Your task to perform on an android device: open a bookmark in the chrome app Image 0: 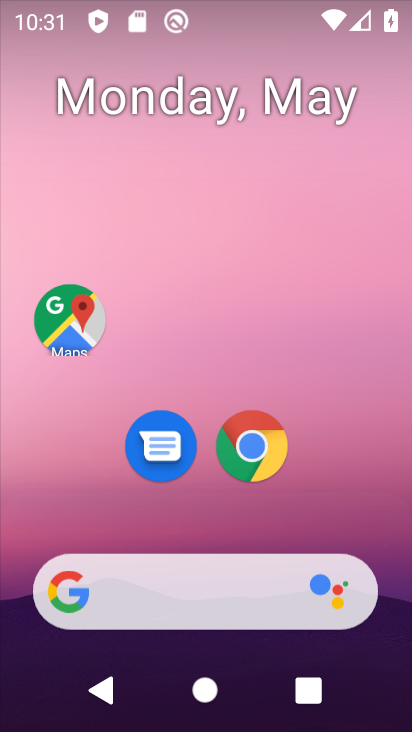
Step 0: click (256, 428)
Your task to perform on an android device: open a bookmark in the chrome app Image 1: 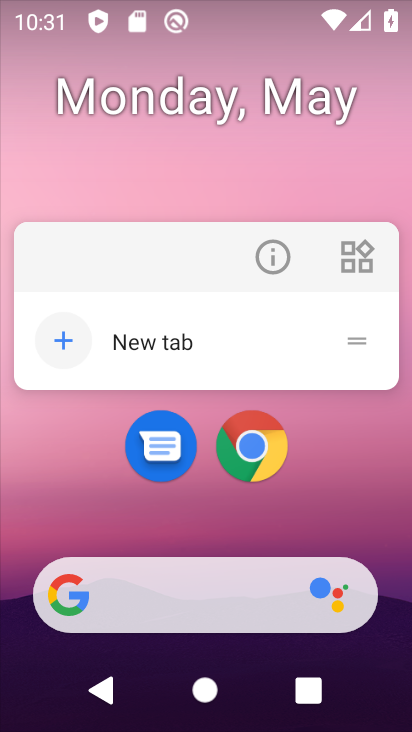
Step 1: click (255, 445)
Your task to perform on an android device: open a bookmark in the chrome app Image 2: 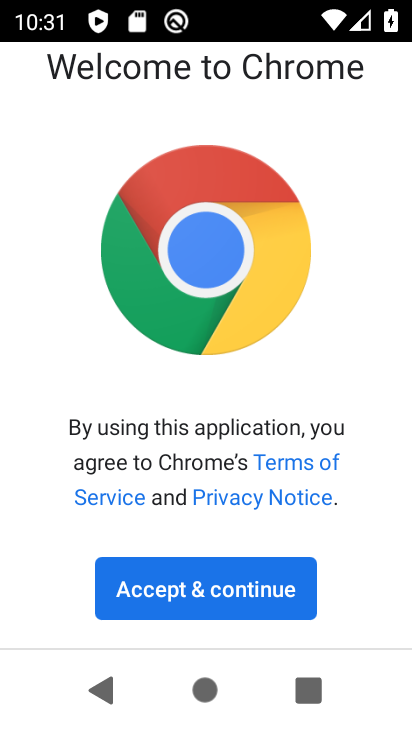
Step 2: click (208, 548)
Your task to perform on an android device: open a bookmark in the chrome app Image 3: 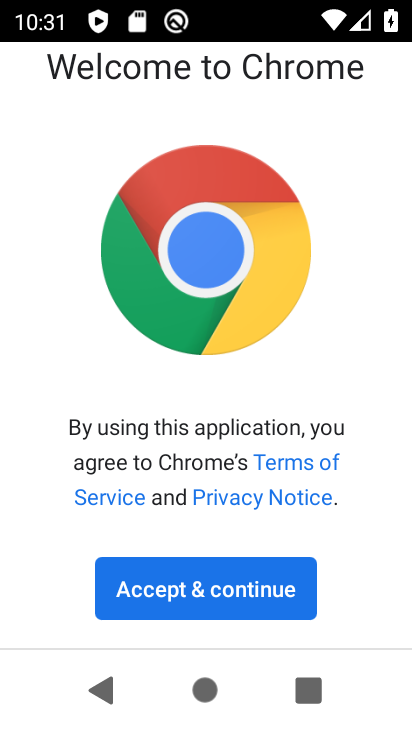
Step 3: click (199, 571)
Your task to perform on an android device: open a bookmark in the chrome app Image 4: 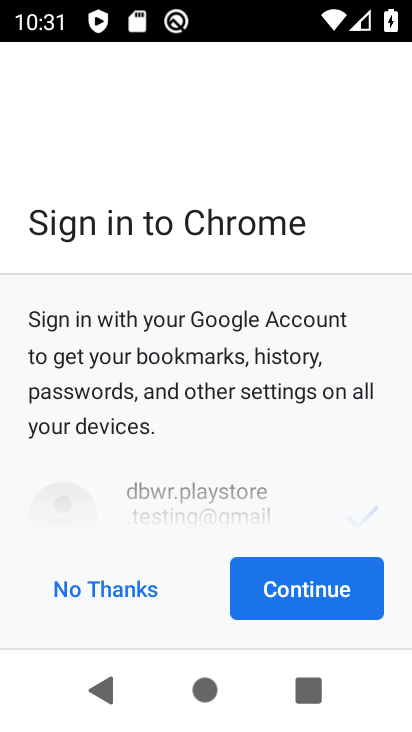
Step 4: click (354, 607)
Your task to perform on an android device: open a bookmark in the chrome app Image 5: 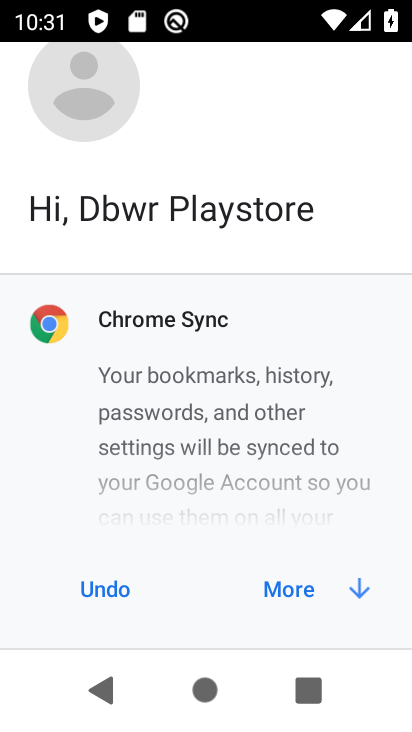
Step 5: click (329, 592)
Your task to perform on an android device: open a bookmark in the chrome app Image 6: 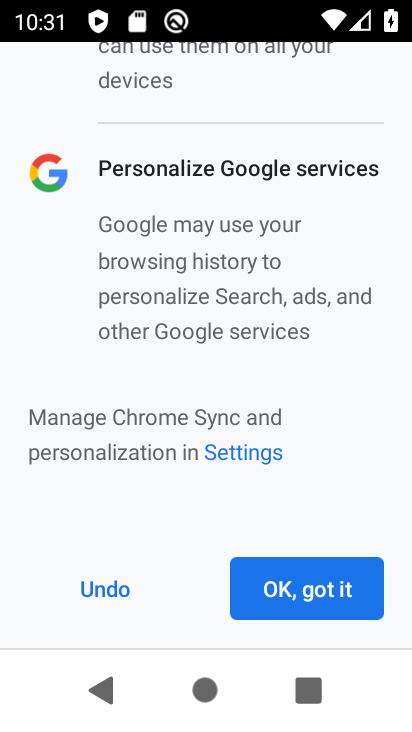
Step 6: click (268, 567)
Your task to perform on an android device: open a bookmark in the chrome app Image 7: 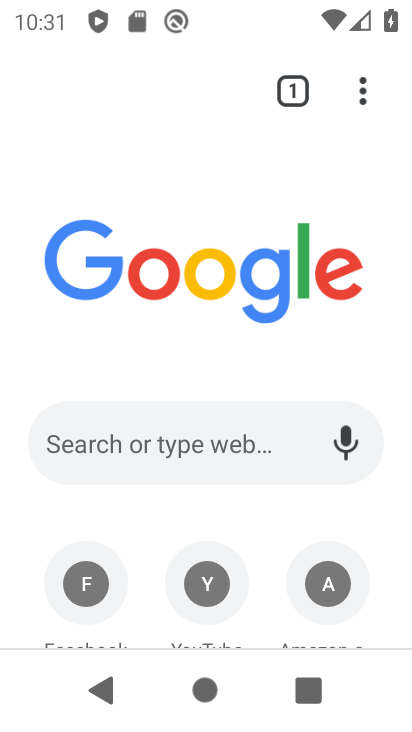
Step 7: task complete